Your task to perform on an android device: Open Youtube and go to the subscriptions tab Image 0: 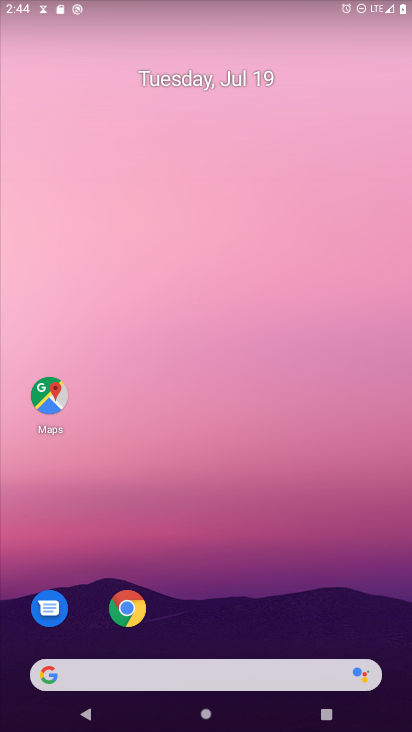
Step 0: drag from (289, 670) to (372, 38)
Your task to perform on an android device: Open Youtube and go to the subscriptions tab Image 1: 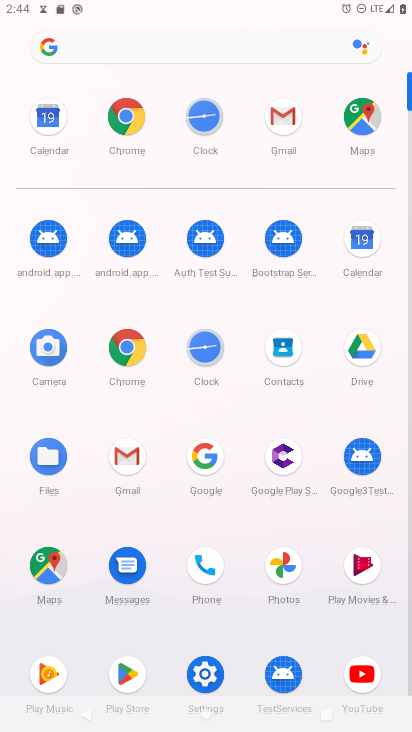
Step 1: drag from (331, 688) to (362, 290)
Your task to perform on an android device: Open Youtube and go to the subscriptions tab Image 2: 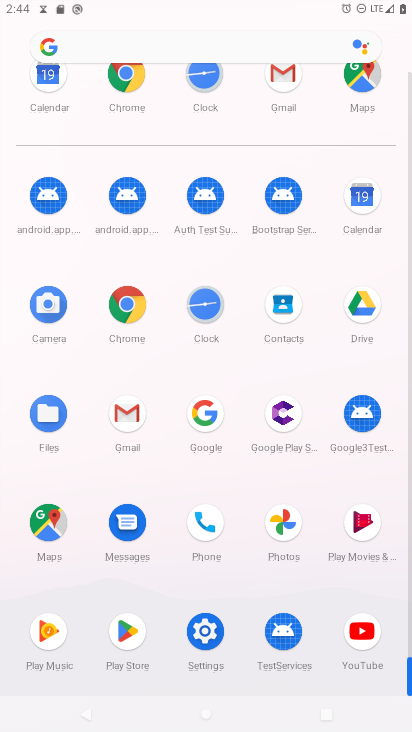
Step 2: click (361, 638)
Your task to perform on an android device: Open Youtube and go to the subscriptions tab Image 3: 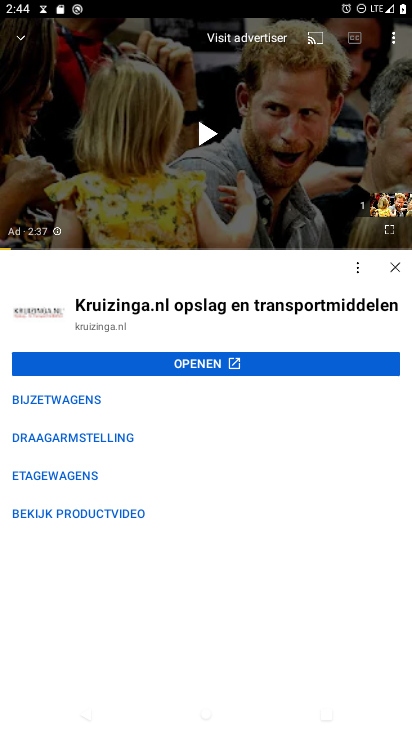
Step 3: press back button
Your task to perform on an android device: Open Youtube and go to the subscriptions tab Image 4: 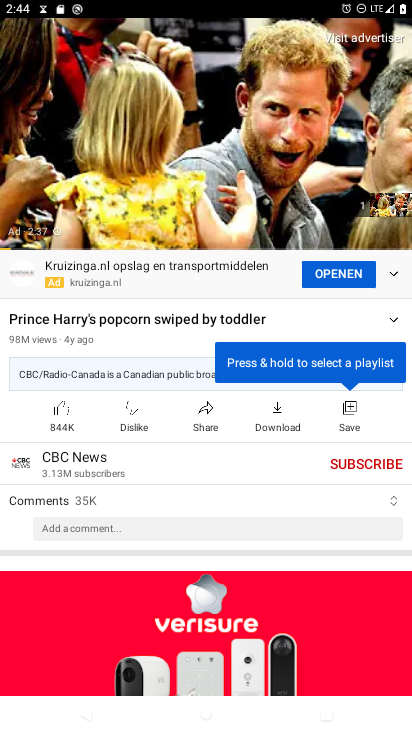
Step 4: press back button
Your task to perform on an android device: Open Youtube and go to the subscriptions tab Image 5: 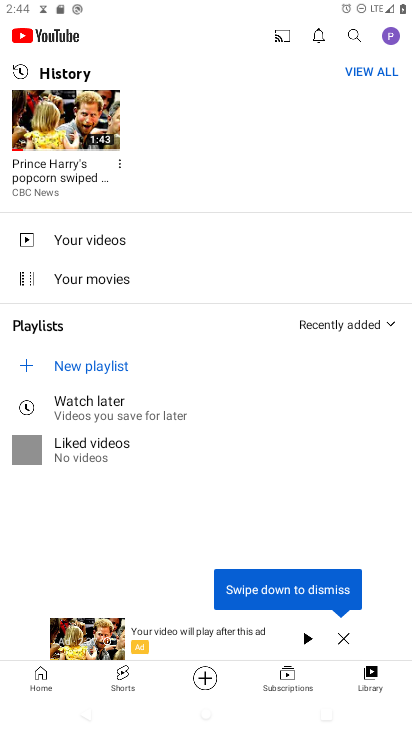
Step 5: click (288, 676)
Your task to perform on an android device: Open Youtube and go to the subscriptions tab Image 6: 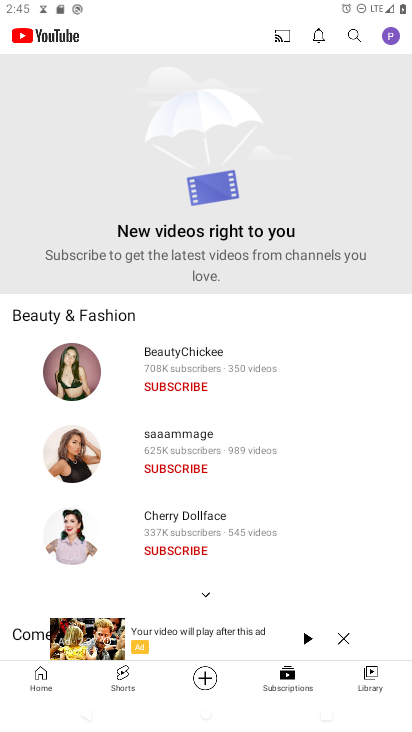
Step 6: task complete